Your task to perform on an android device: Open privacy settings Image 0: 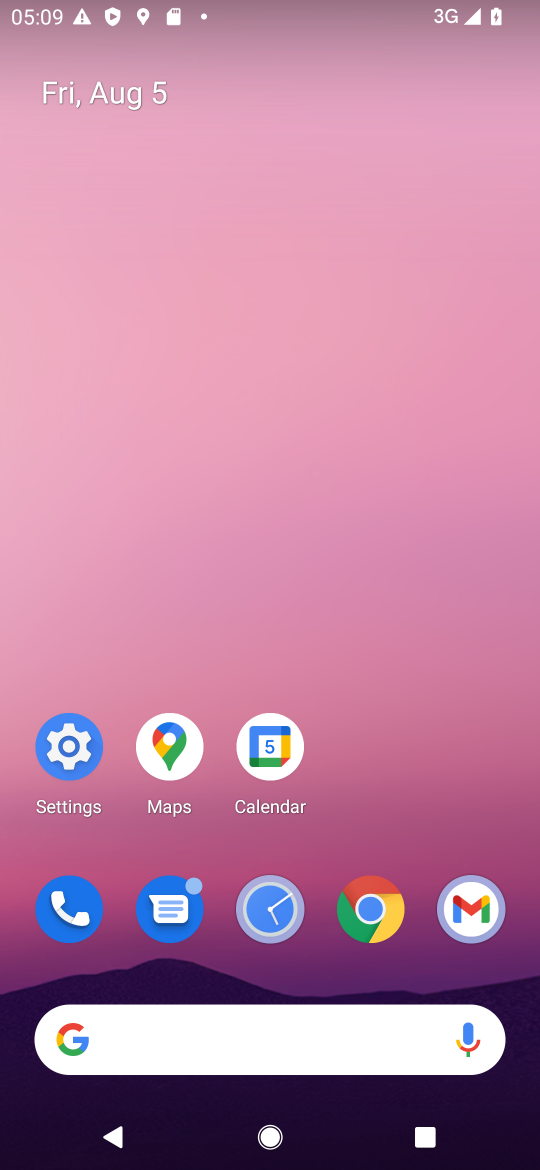
Step 0: click (74, 737)
Your task to perform on an android device: Open privacy settings Image 1: 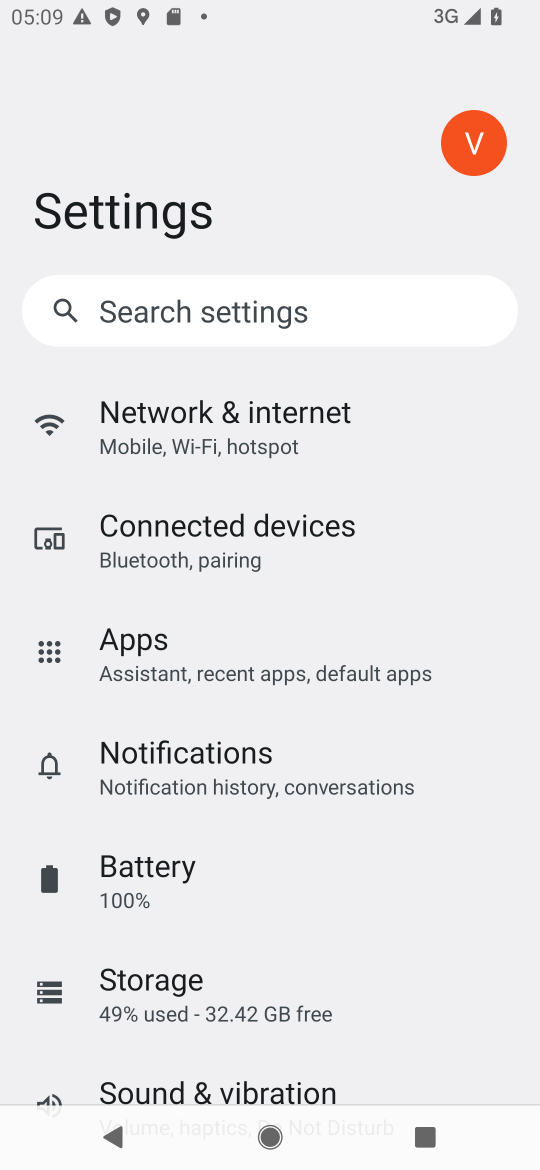
Step 1: drag from (309, 978) to (311, 315)
Your task to perform on an android device: Open privacy settings Image 2: 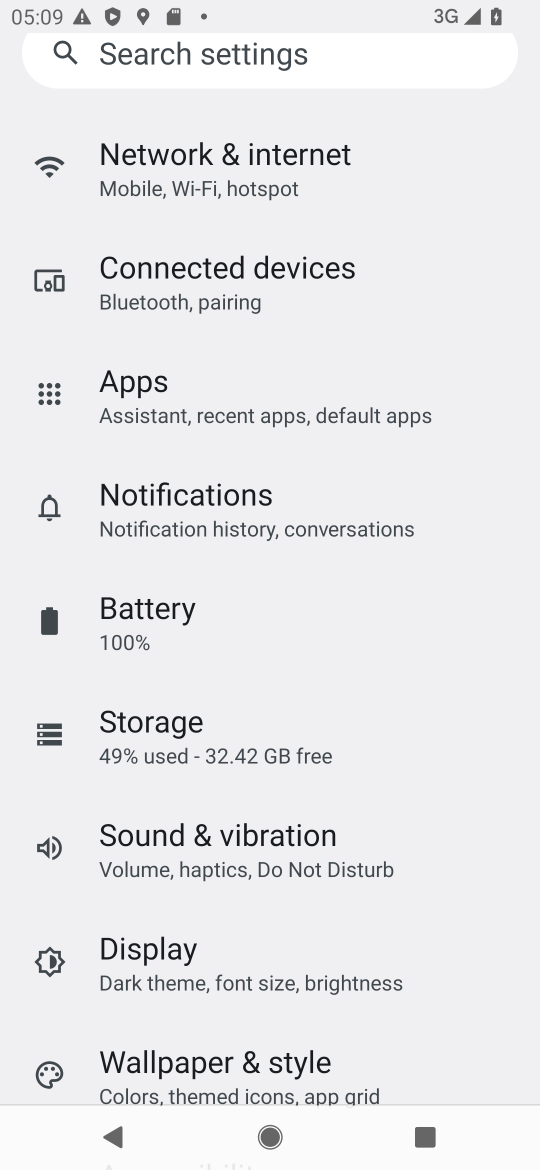
Step 2: drag from (378, 939) to (359, 237)
Your task to perform on an android device: Open privacy settings Image 3: 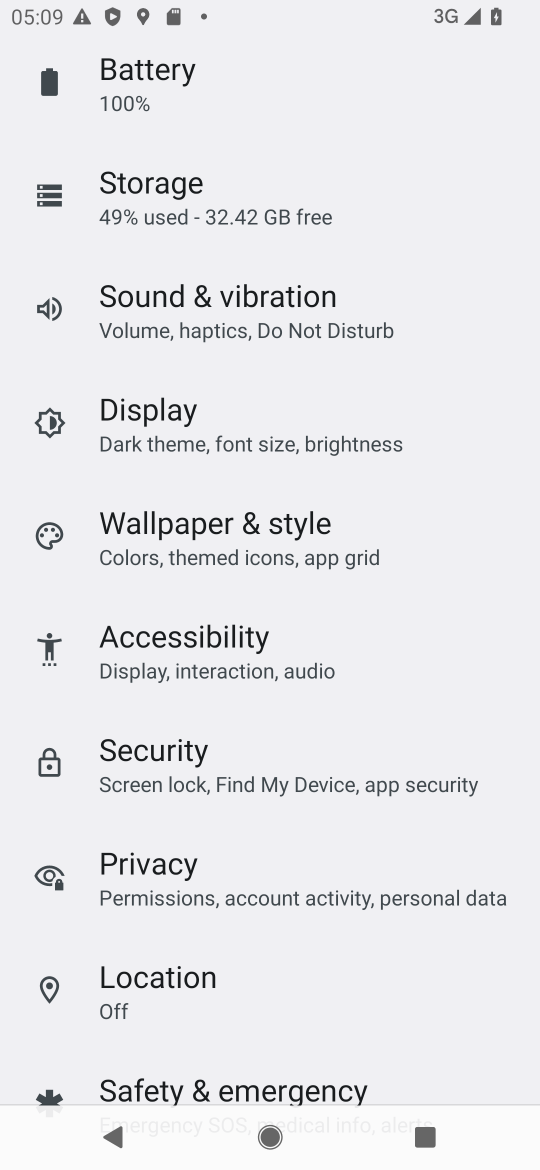
Step 3: click (160, 867)
Your task to perform on an android device: Open privacy settings Image 4: 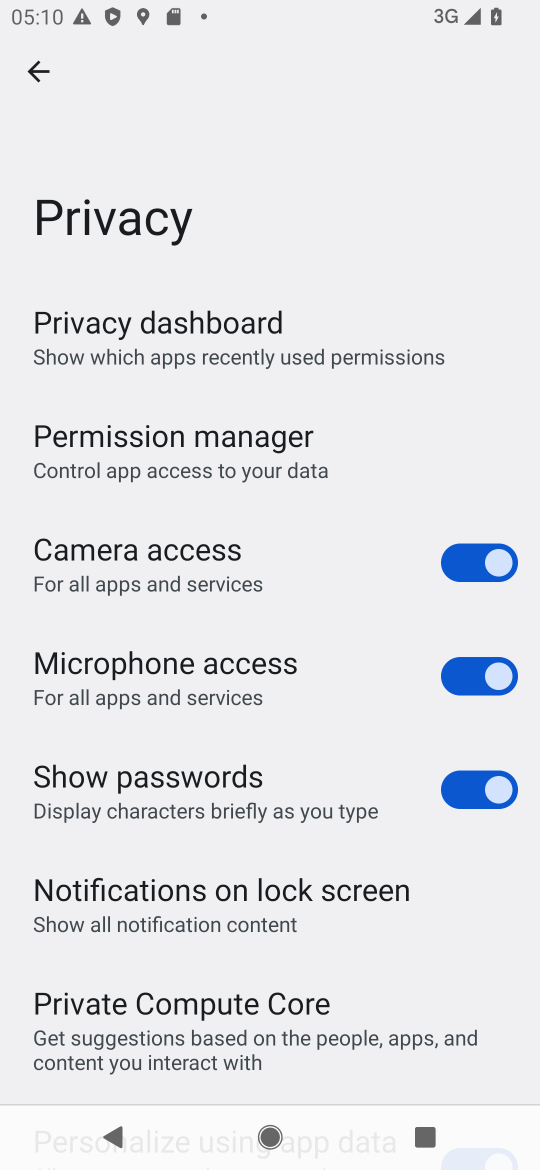
Step 4: task complete